Your task to perform on an android device: Go to accessibility settings Image 0: 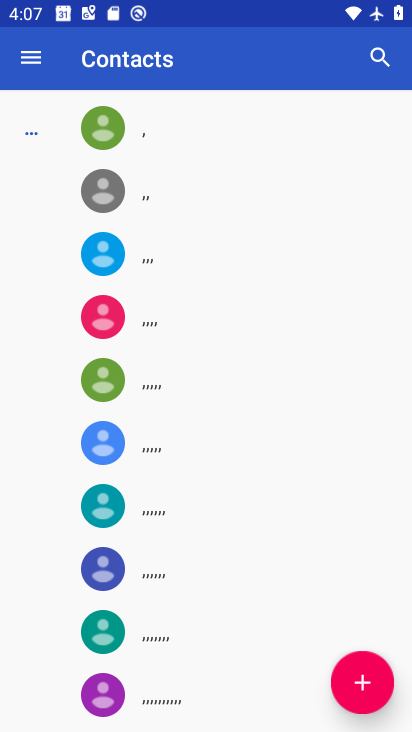
Step 0: press home button
Your task to perform on an android device: Go to accessibility settings Image 1: 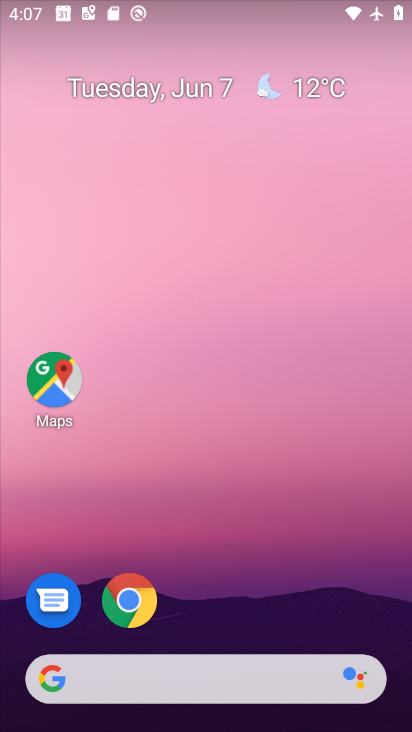
Step 1: drag from (286, 607) to (254, 199)
Your task to perform on an android device: Go to accessibility settings Image 2: 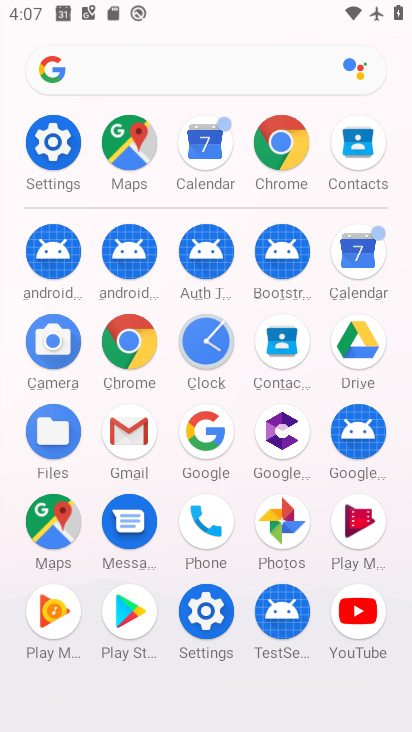
Step 2: click (65, 134)
Your task to perform on an android device: Go to accessibility settings Image 3: 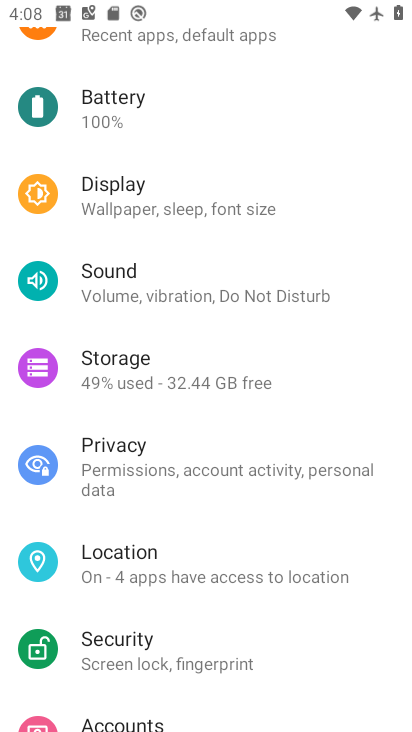
Step 3: drag from (170, 618) to (317, 138)
Your task to perform on an android device: Go to accessibility settings Image 4: 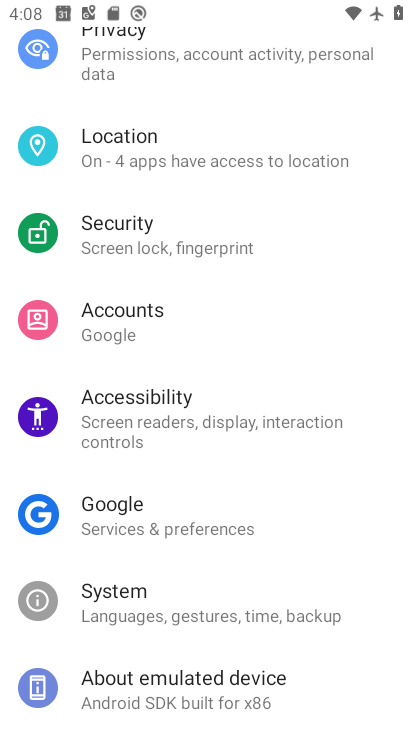
Step 4: click (219, 420)
Your task to perform on an android device: Go to accessibility settings Image 5: 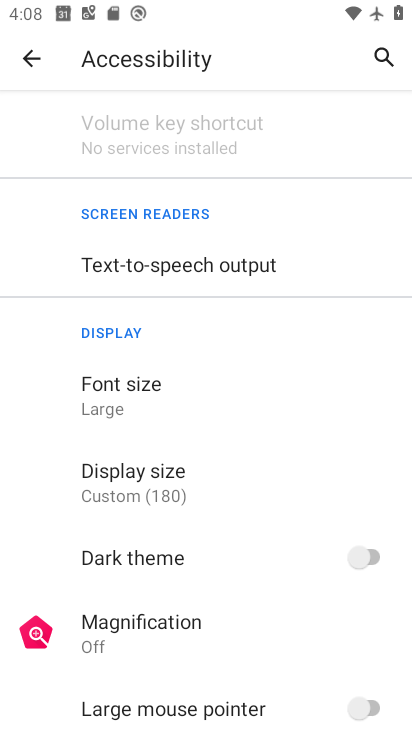
Step 5: task complete